Your task to perform on an android device: Is it going to rain tomorrow? Image 0: 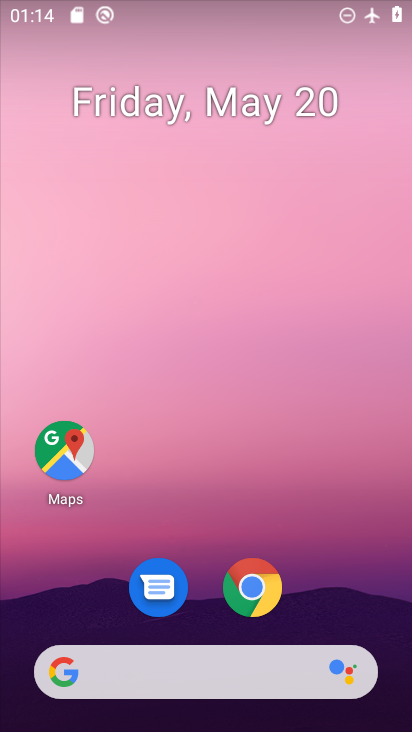
Step 0: click (233, 669)
Your task to perform on an android device: Is it going to rain tomorrow? Image 1: 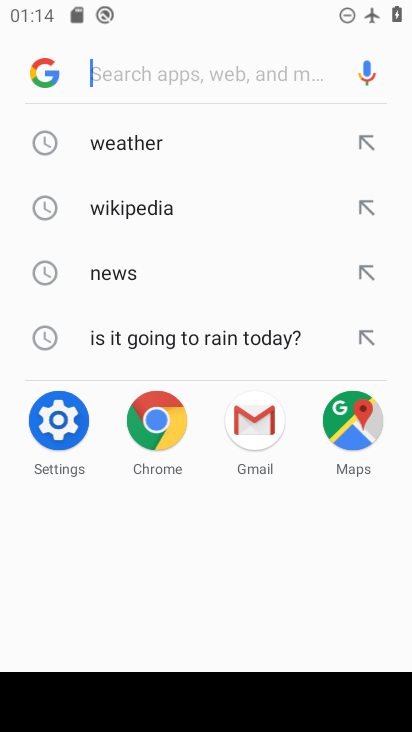
Step 1: click (140, 150)
Your task to perform on an android device: Is it going to rain tomorrow? Image 2: 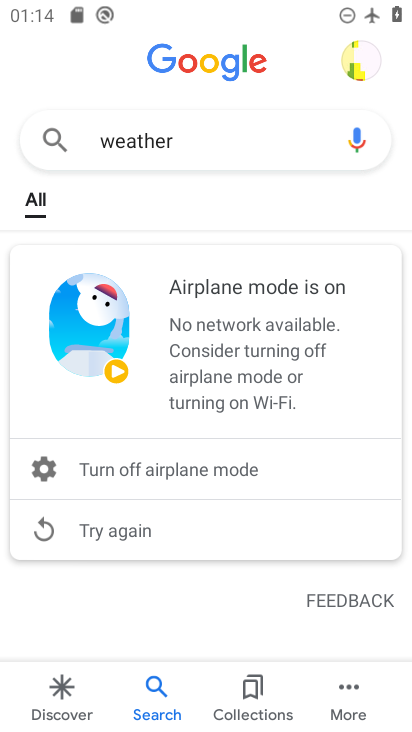
Step 2: task complete